Your task to perform on an android device: see creations saved in the google photos Image 0: 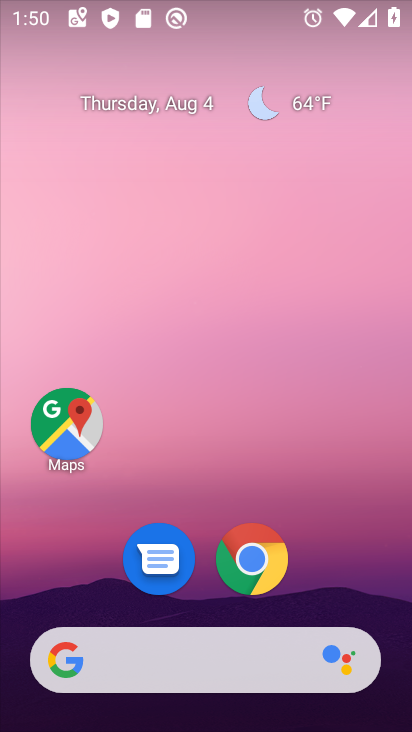
Step 0: drag from (198, 670) to (302, 4)
Your task to perform on an android device: see creations saved in the google photos Image 1: 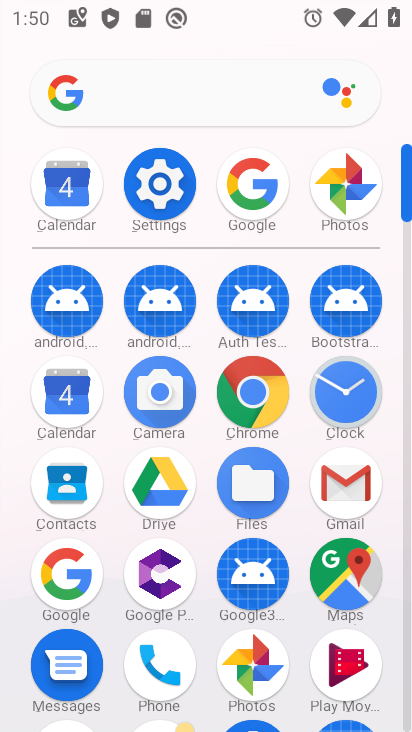
Step 1: click (349, 183)
Your task to perform on an android device: see creations saved in the google photos Image 2: 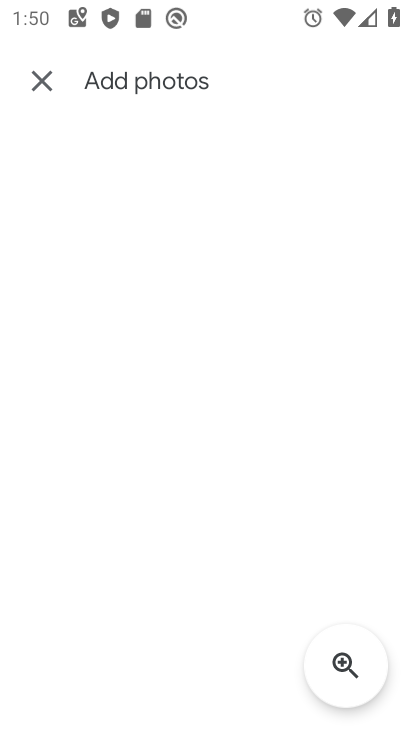
Step 2: click (37, 85)
Your task to perform on an android device: see creations saved in the google photos Image 3: 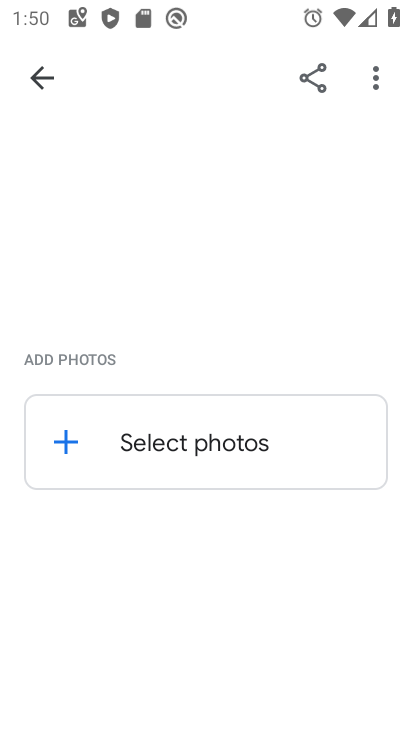
Step 3: press back button
Your task to perform on an android device: see creations saved in the google photos Image 4: 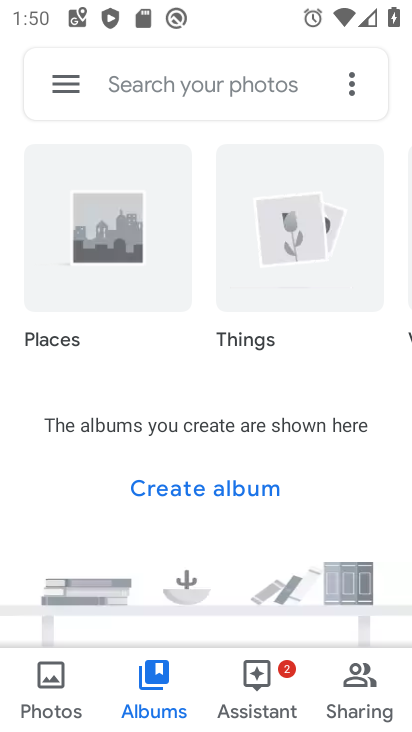
Step 4: click (42, 688)
Your task to perform on an android device: see creations saved in the google photos Image 5: 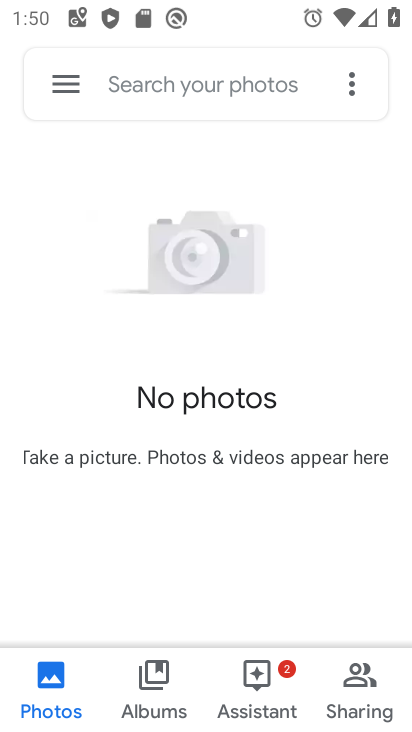
Step 5: click (158, 673)
Your task to perform on an android device: see creations saved in the google photos Image 6: 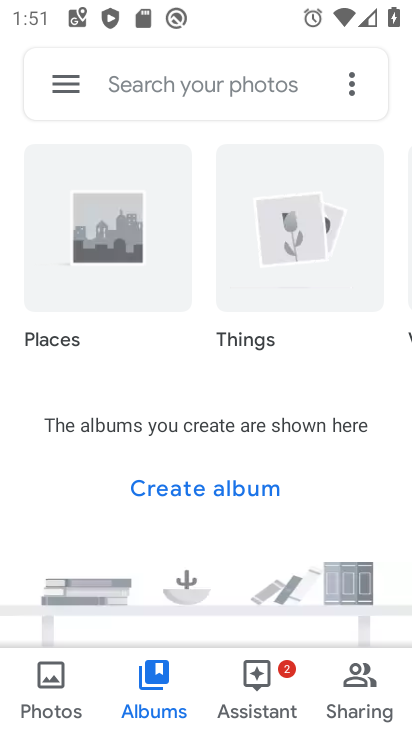
Step 6: click (54, 690)
Your task to perform on an android device: see creations saved in the google photos Image 7: 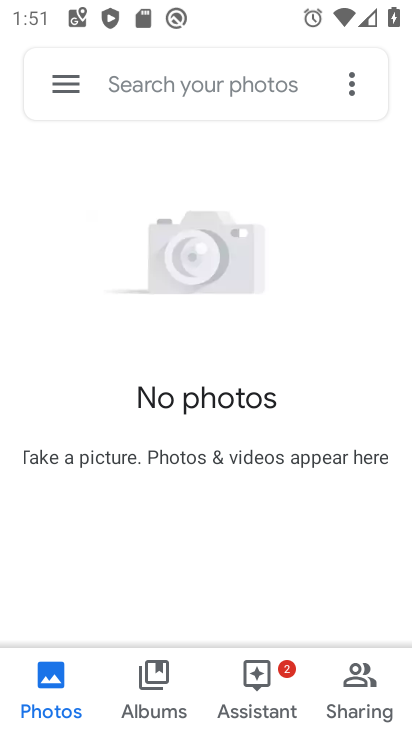
Step 7: click (80, 93)
Your task to perform on an android device: see creations saved in the google photos Image 8: 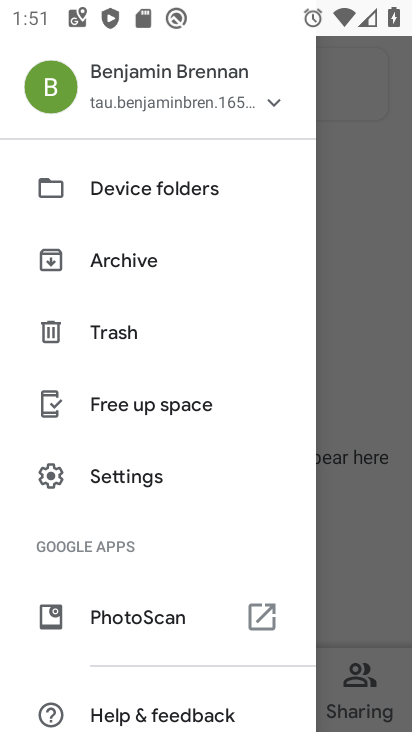
Step 8: click (338, 292)
Your task to perform on an android device: see creations saved in the google photos Image 9: 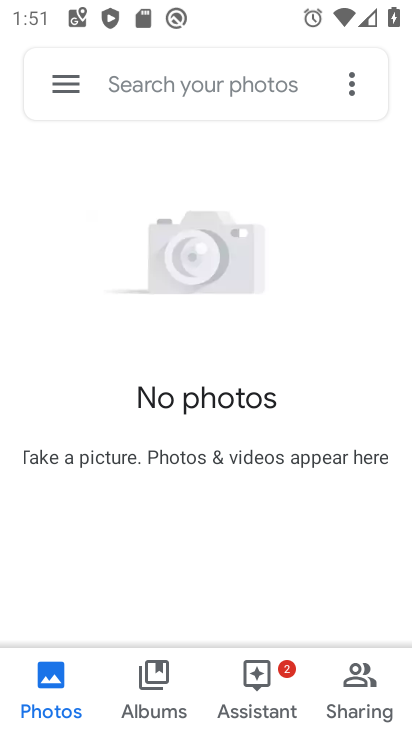
Step 9: click (349, 98)
Your task to perform on an android device: see creations saved in the google photos Image 10: 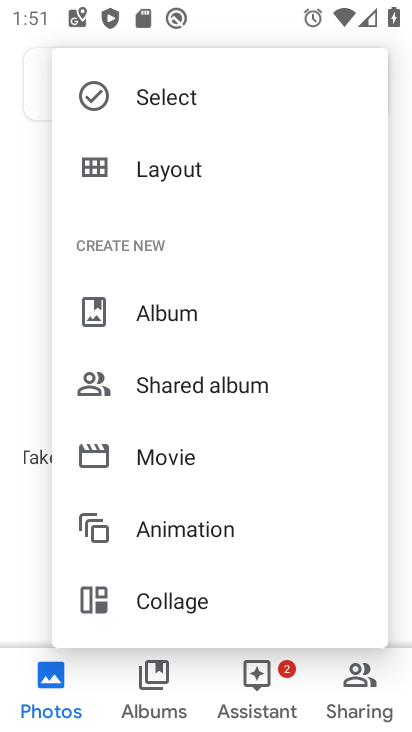
Step 10: click (43, 252)
Your task to perform on an android device: see creations saved in the google photos Image 11: 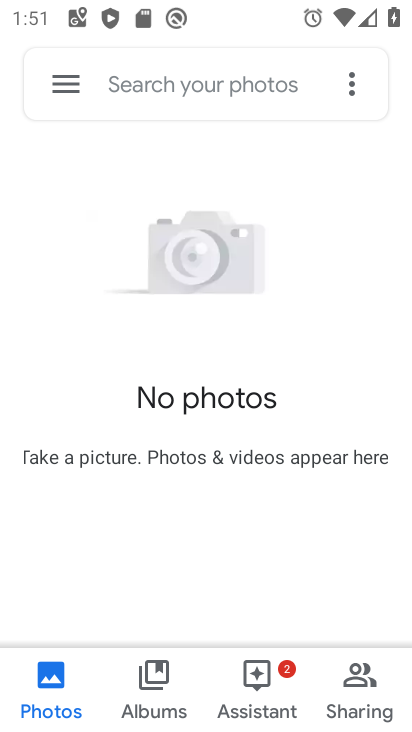
Step 11: click (36, 257)
Your task to perform on an android device: see creations saved in the google photos Image 12: 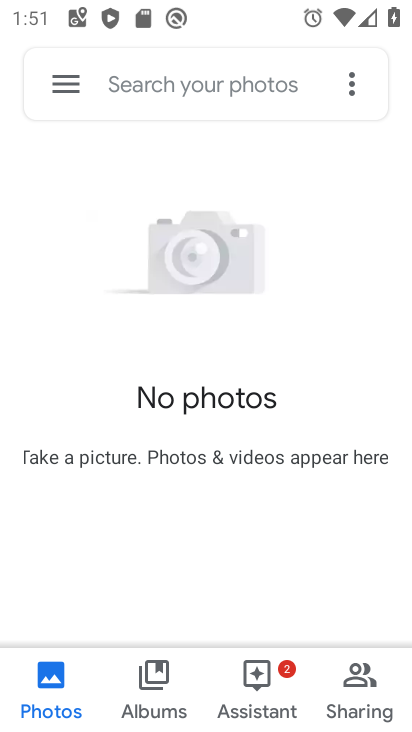
Step 12: click (72, 76)
Your task to perform on an android device: see creations saved in the google photos Image 13: 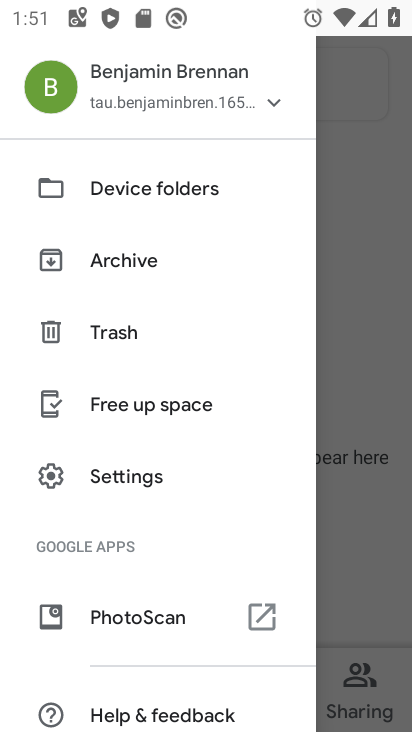
Step 13: click (362, 343)
Your task to perform on an android device: see creations saved in the google photos Image 14: 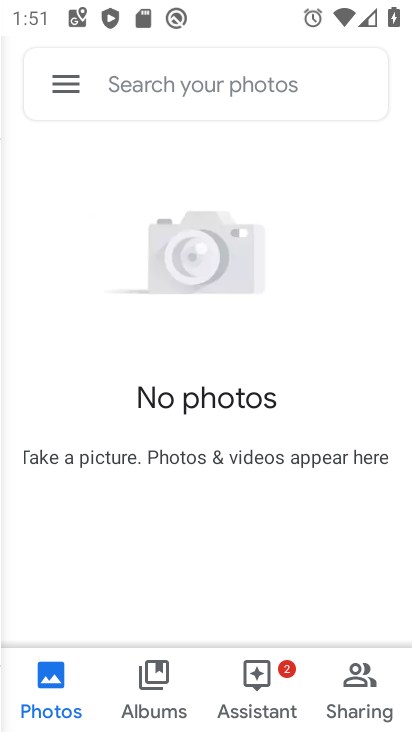
Step 14: click (362, 343)
Your task to perform on an android device: see creations saved in the google photos Image 15: 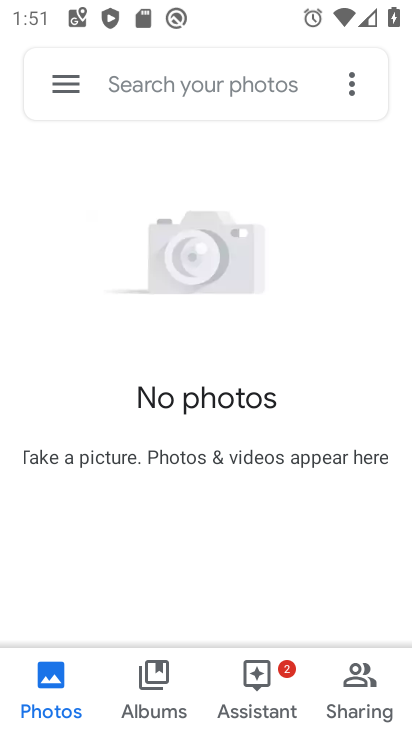
Step 15: click (153, 391)
Your task to perform on an android device: see creations saved in the google photos Image 16: 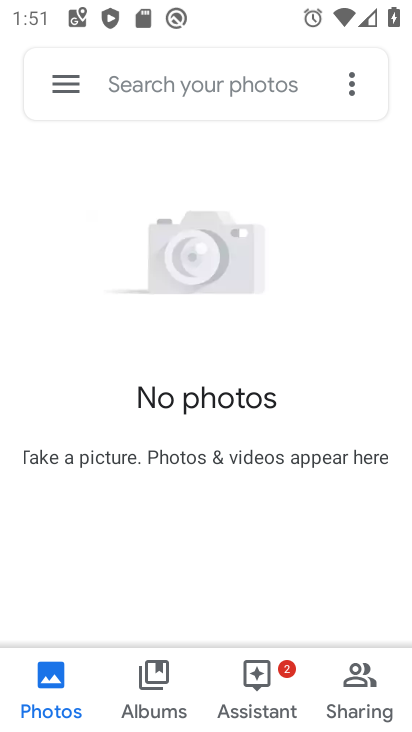
Step 16: click (153, 389)
Your task to perform on an android device: see creations saved in the google photos Image 17: 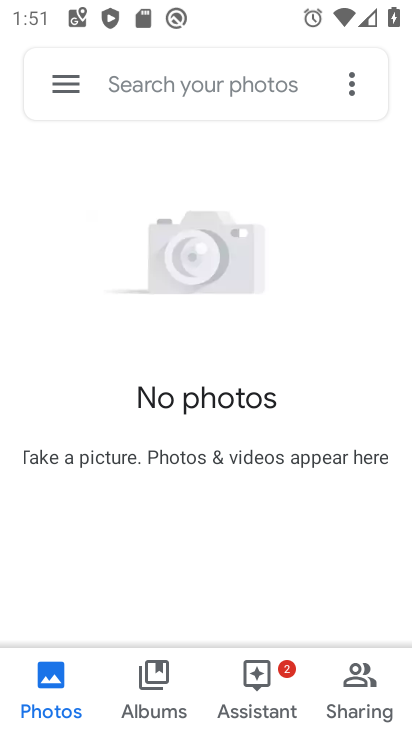
Step 17: drag from (127, 394) to (169, 369)
Your task to perform on an android device: see creations saved in the google photos Image 18: 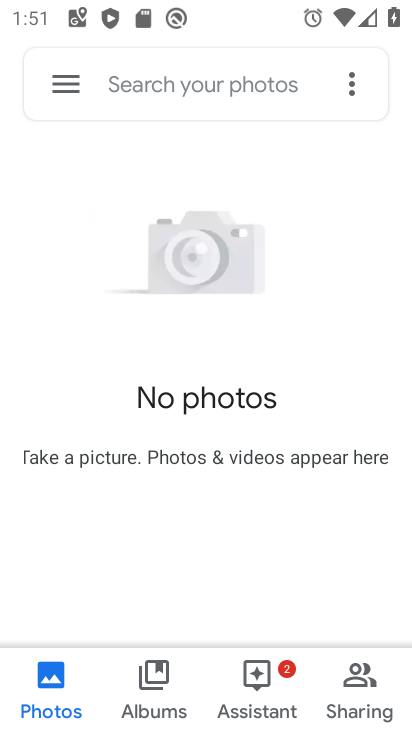
Step 18: click (328, 96)
Your task to perform on an android device: see creations saved in the google photos Image 19: 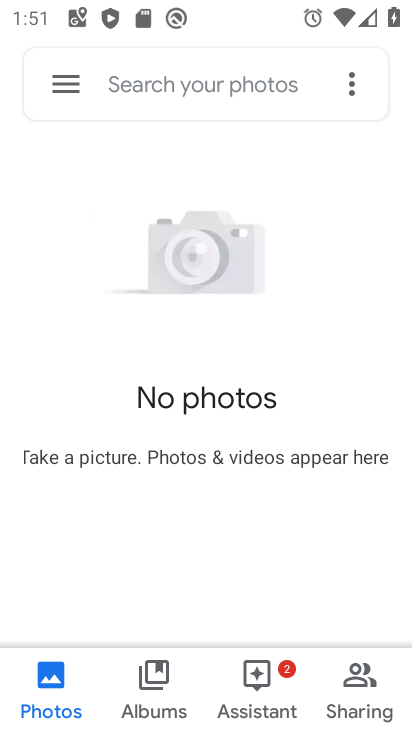
Step 19: click (328, 96)
Your task to perform on an android device: see creations saved in the google photos Image 20: 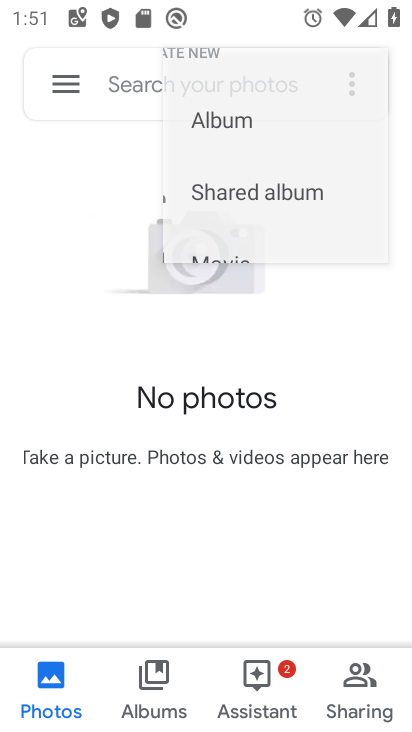
Step 20: click (328, 96)
Your task to perform on an android device: see creations saved in the google photos Image 21: 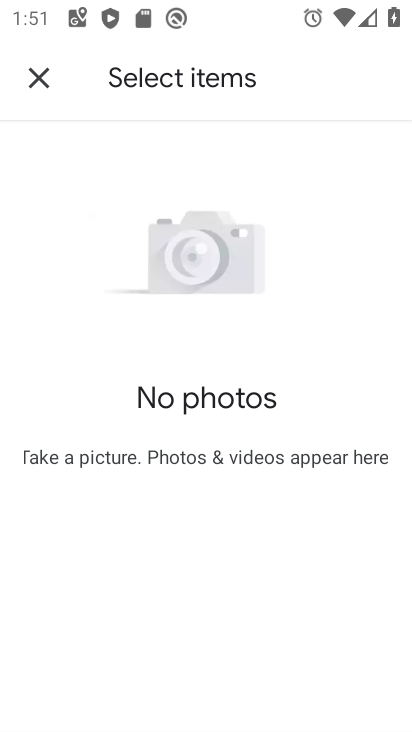
Step 21: click (38, 64)
Your task to perform on an android device: see creations saved in the google photos Image 22: 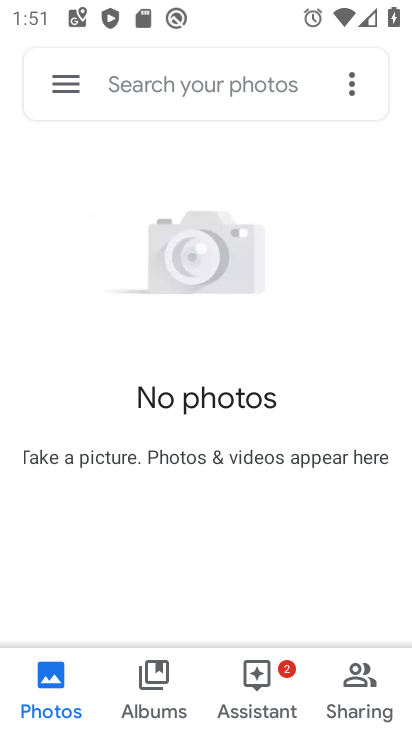
Step 22: click (241, 80)
Your task to perform on an android device: see creations saved in the google photos Image 23: 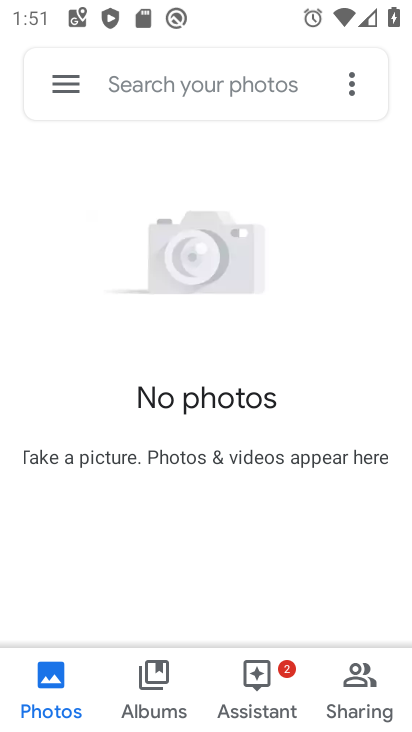
Step 23: task complete